Your task to perform on an android device: Add "razer blade" to the cart on walmart.com Image 0: 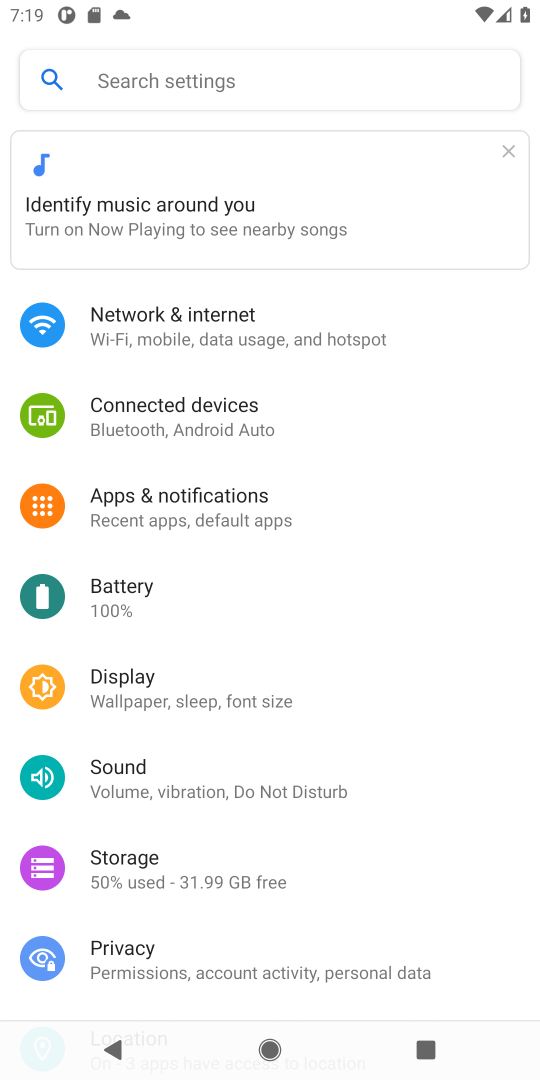
Step 0: press home button
Your task to perform on an android device: Add "razer blade" to the cart on walmart.com Image 1: 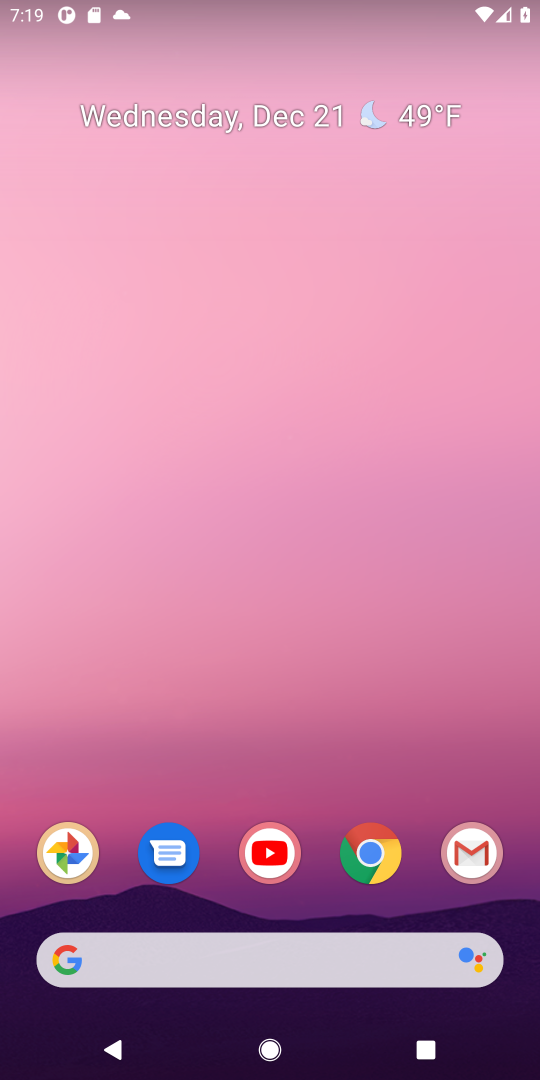
Step 1: click (383, 844)
Your task to perform on an android device: Add "razer blade" to the cart on walmart.com Image 2: 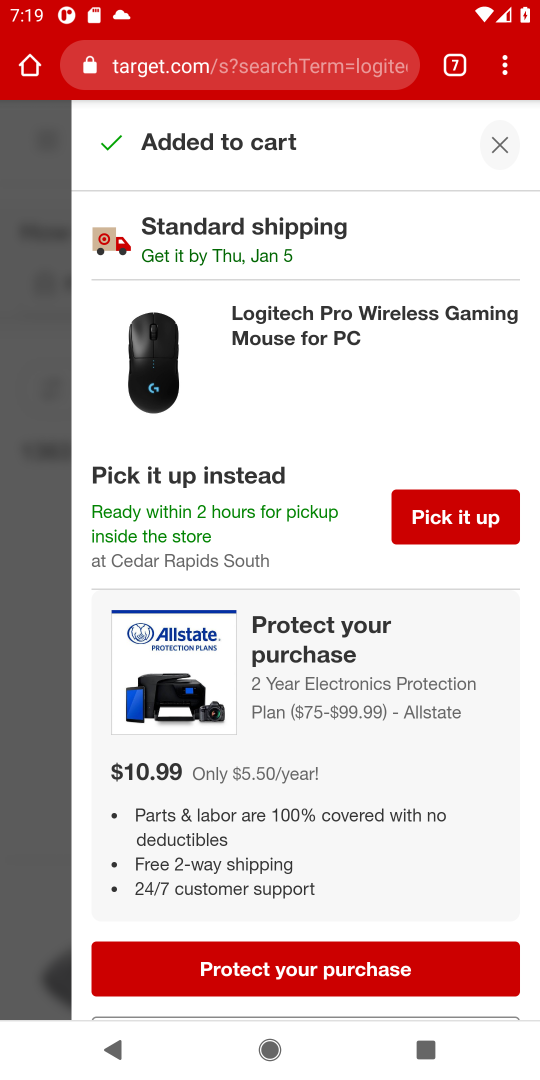
Step 2: click (457, 64)
Your task to perform on an android device: Add "razer blade" to the cart on walmart.com Image 3: 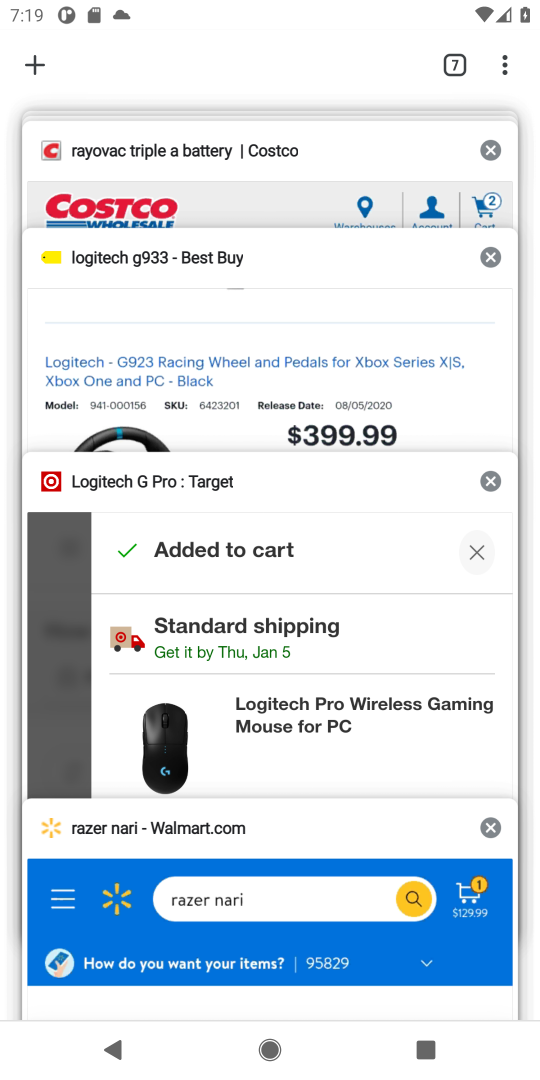
Step 3: click (142, 840)
Your task to perform on an android device: Add "razer blade" to the cart on walmart.com Image 4: 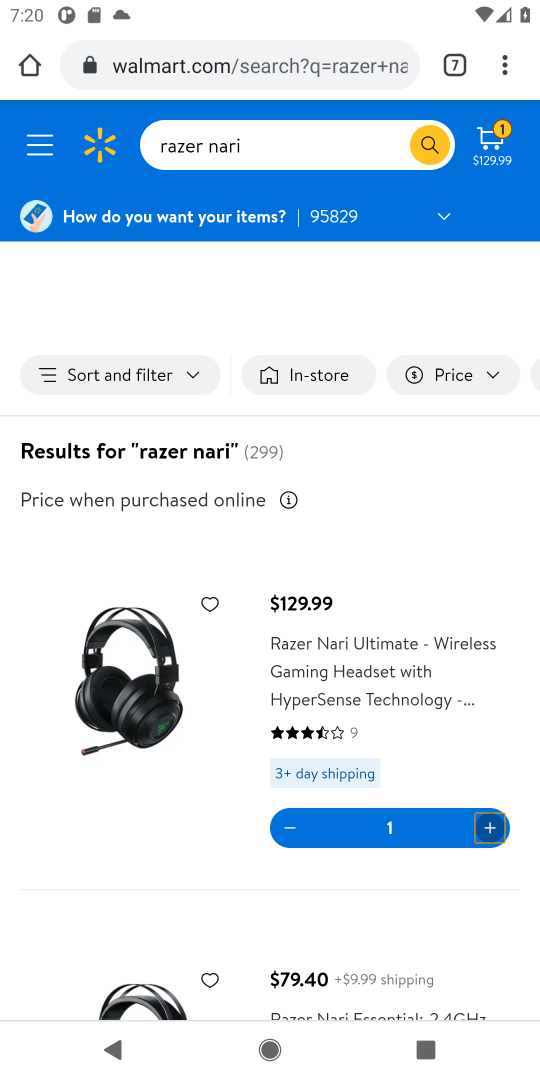
Step 4: click (288, 129)
Your task to perform on an android device: Add "razer blade" to the cart on walmart.com Image 5: 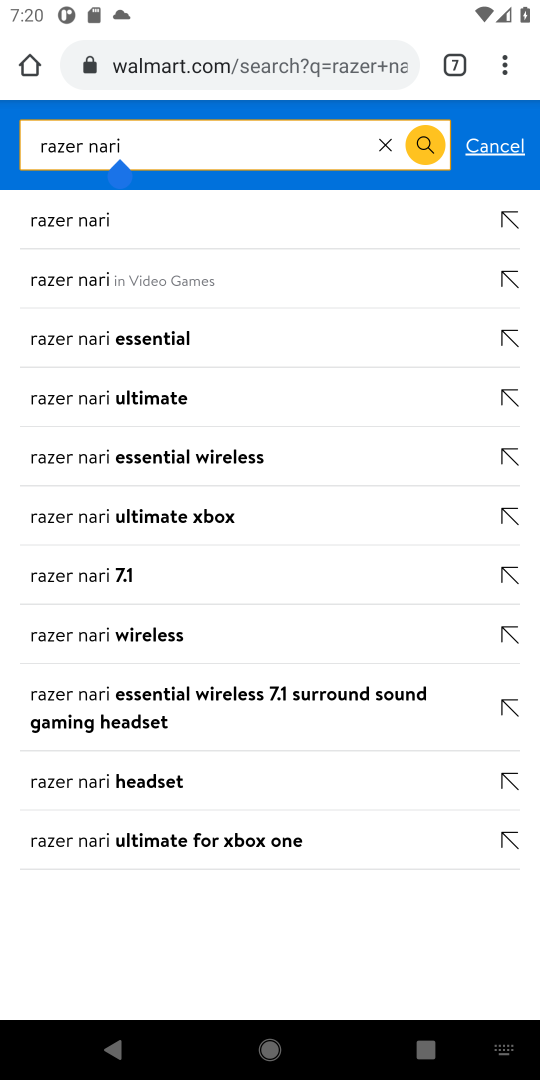
Step 5: click (389, 141)
Your task to perform on an android device: Add "razer blade" to the cart on walmart.com Image 6: 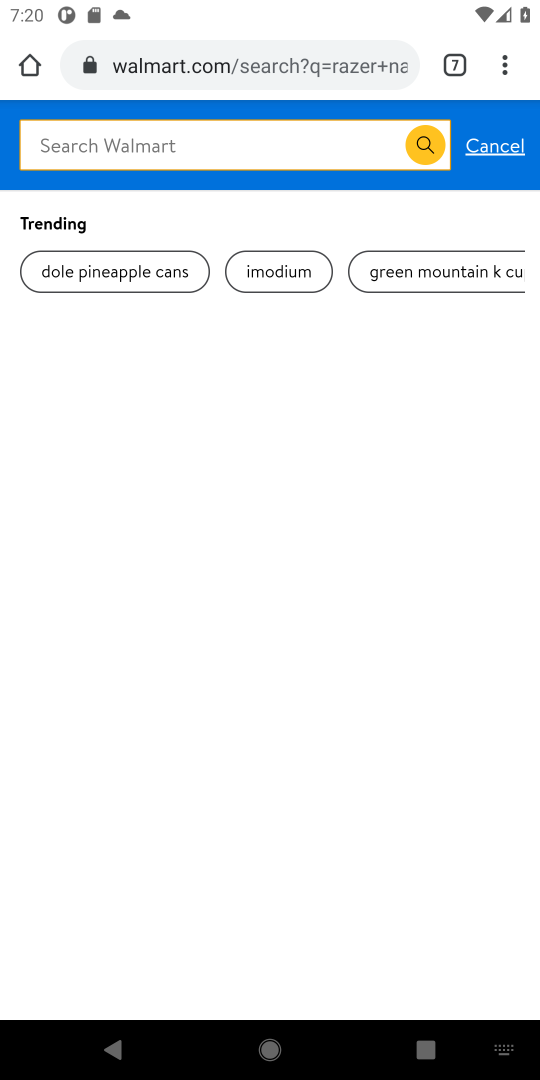
Step 6: type "razer blade"
Your task to perform on an android device: Add "razer blade" to the cart on walmart.com Image 7: 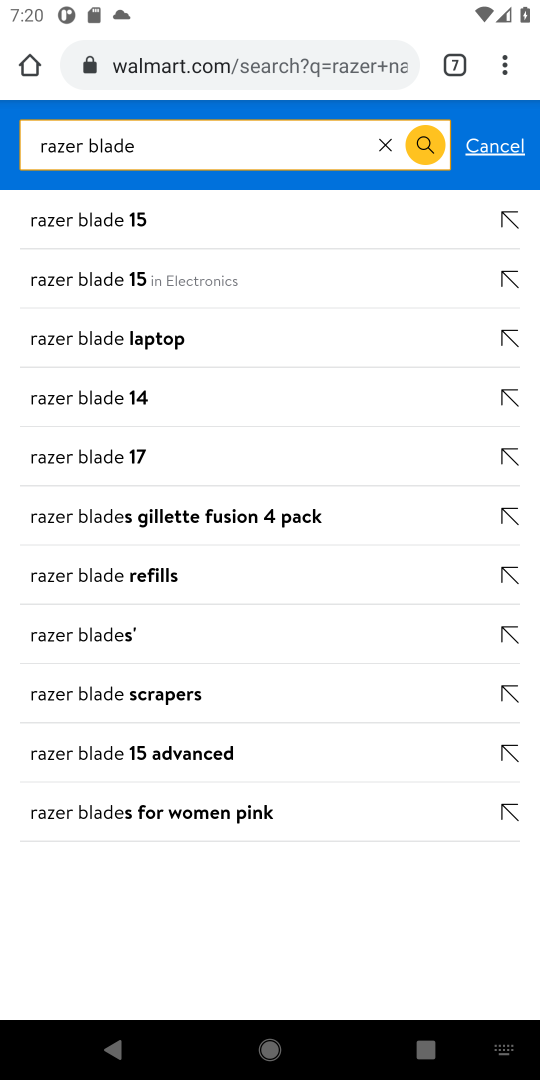
Step 7: click (110, 279)
Your task to perform on an android device: Add "razer blade" to the cart on walmart.com Image 8: 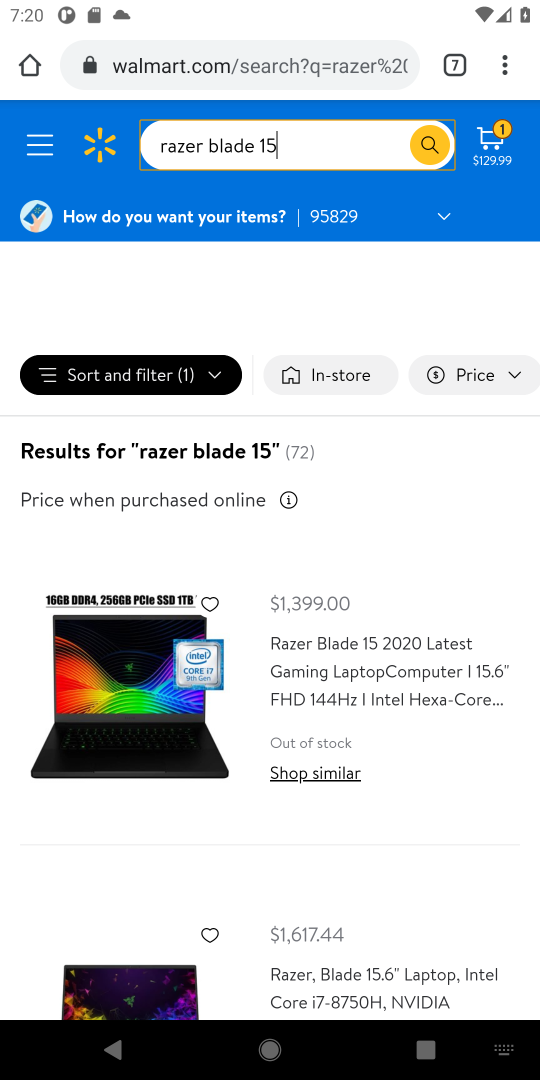
Step 8: drag from (441, 820) to (451, 349)
Your task to perform on an android device: Add "razer blade" to the cart on walmart.com Image 9: 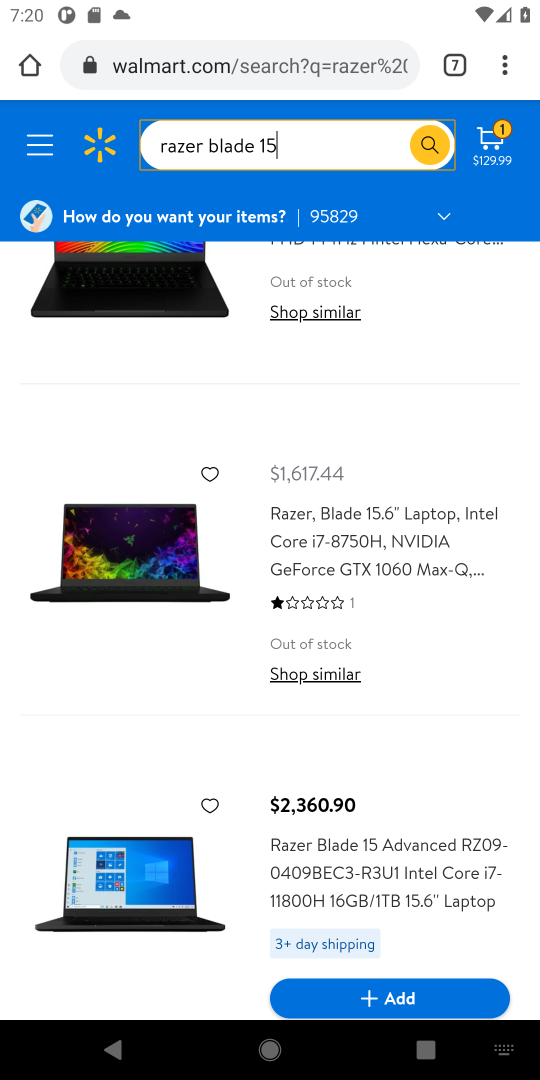
Step 9: drag from (420, 779) to (429, 526)
Your task to perform on an android device: Add "razer blade" to the cart on walmart.com Image 10: 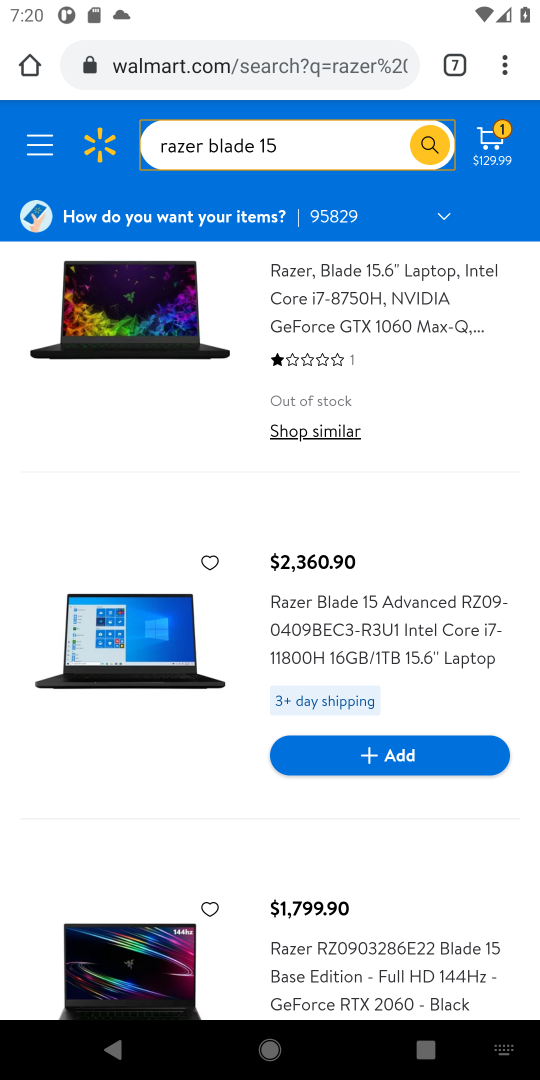
Step 10: click (419, 758)
Your task to perform on an android device: Add "razer blade" to the cart on walmart.com Image 11: 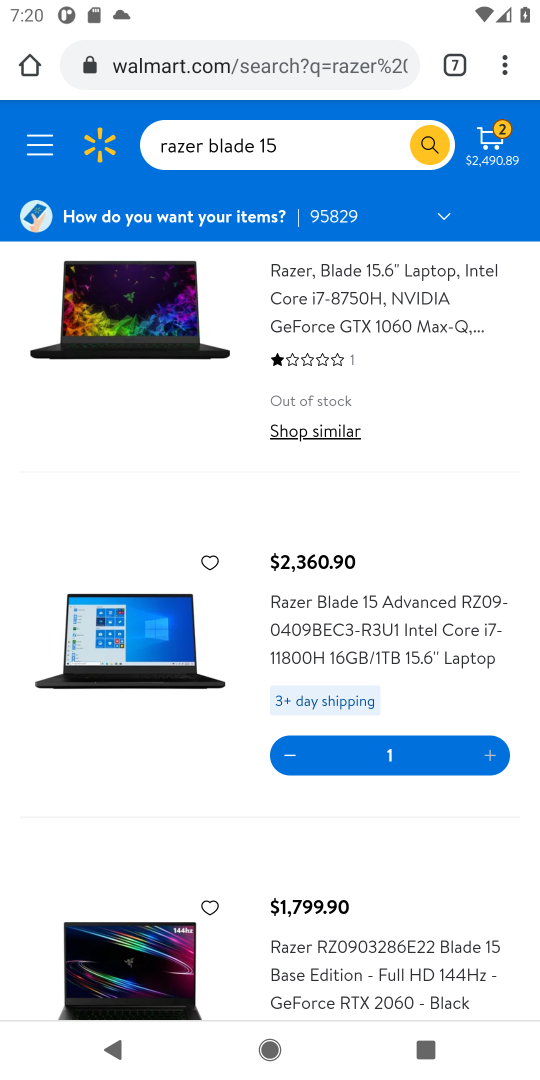
Step 11: task complete